Your task to perform on an android device: toggle show notifications on the lock screen Image 0: 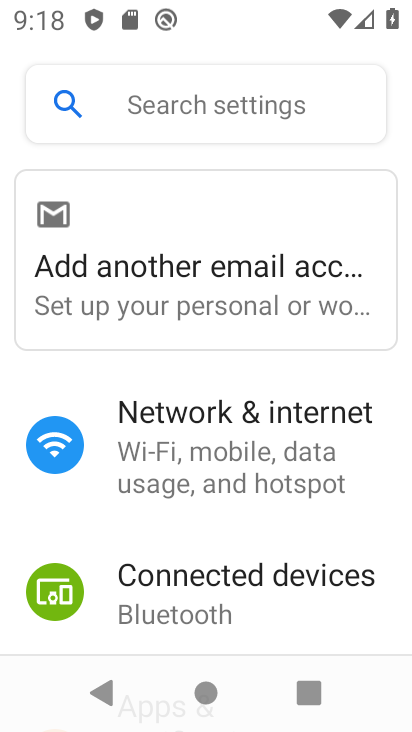
Step 0: drag from (229, 628) to (222, 257)
Your task to perform on an android device: toggle show notifications on the lock screen Image 1: 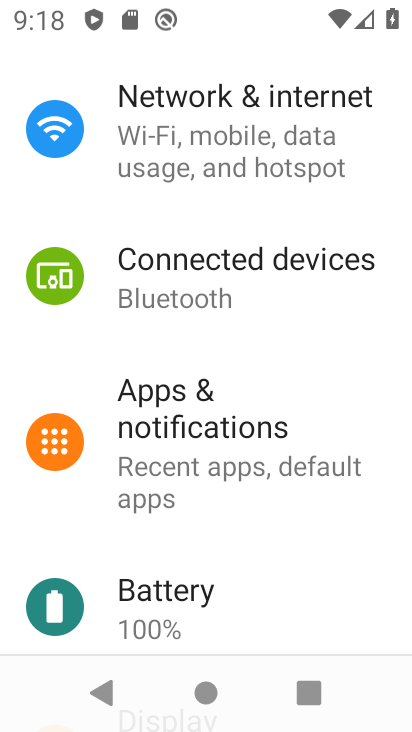
Step 1: click (168, 412)
Your task to perform on an android device: toggle show notifications on the lock screen Image 2: 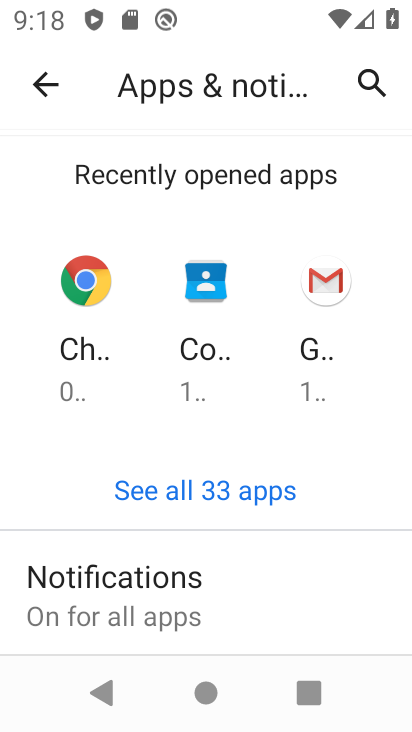
Step 2: click (107, 605)
Your task to perform on an android device: toggle show notifications on the lock screen Image 3: 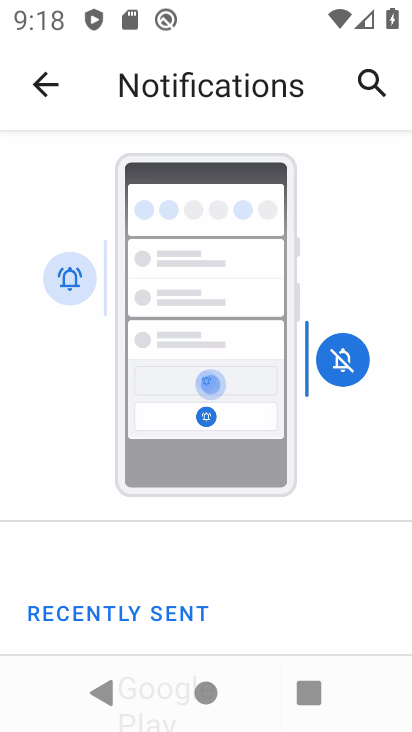
Step 3: drag from (256, 634) to (275, 270)
Your task to perform on an android device: toggle show notifications on the lock screen Image 4: 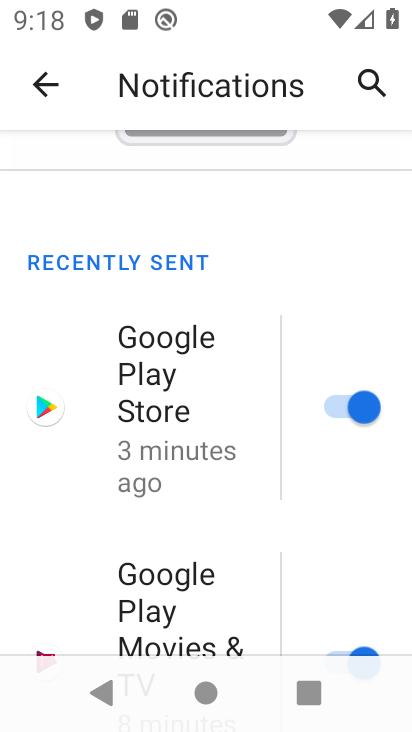
Step 4: drag from (232, 600) to (232, 167)
Your task to perform on an android device: toggle show notifications on the lock screen Image 5: 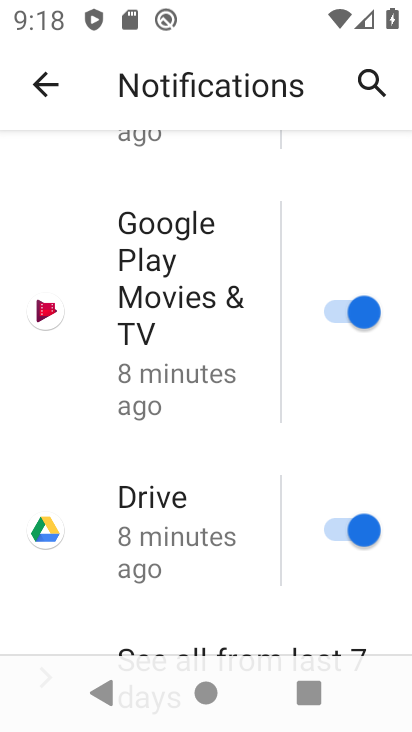
Step 5: drag from (248, 636) to (246, 255)
Your task to perform on an android device: toggle show notifications on the lock screen Image 6: 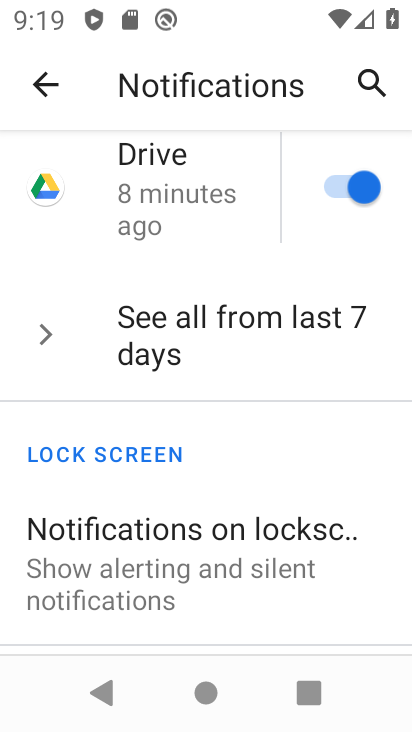
Step 6: click (181, 550)
Your task to perform on an android device: toggle show notifications on the lock screen Image 7: 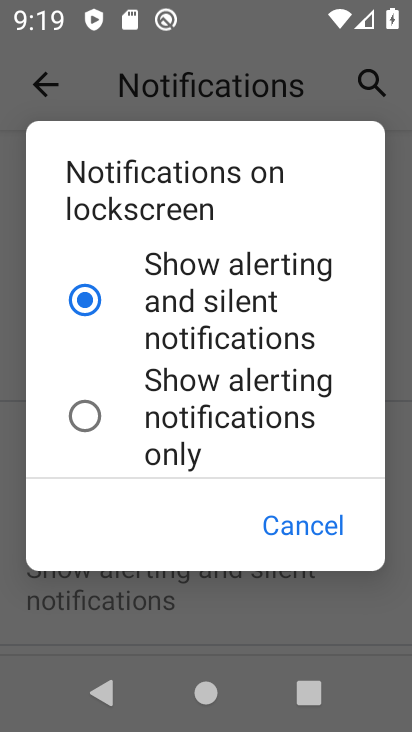
Step 7: click (80, 412)
Your task to perform on an android device: toggle show notifications on the lock screen Image 8: 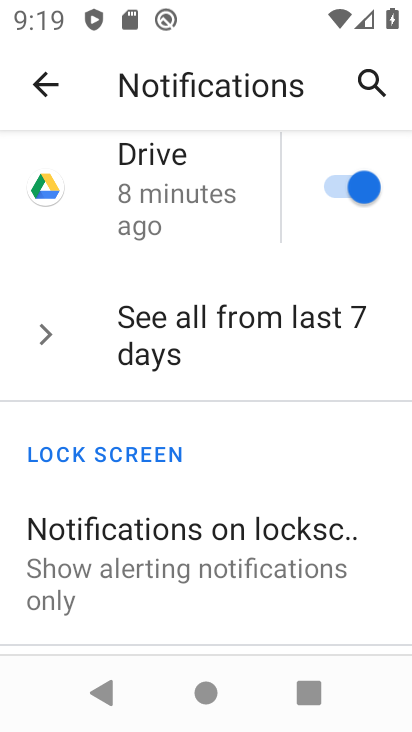
Step 8: task complete